Your task to perform on an android device: Open settings on Google Maps Image 0: 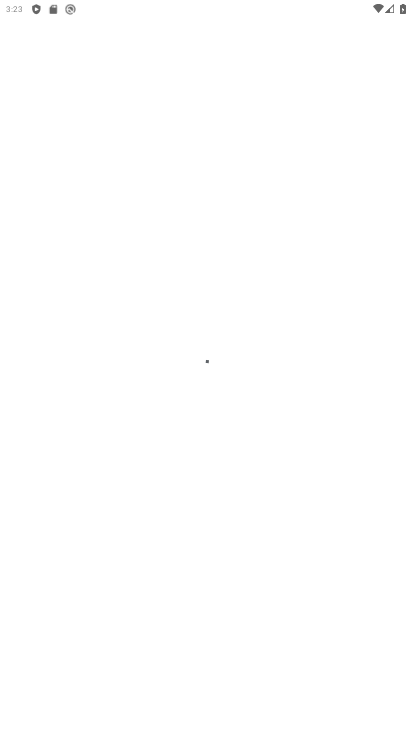
Step 0: press back button
Your task to perform on an android device: Open settings on Google Maps Image 1: 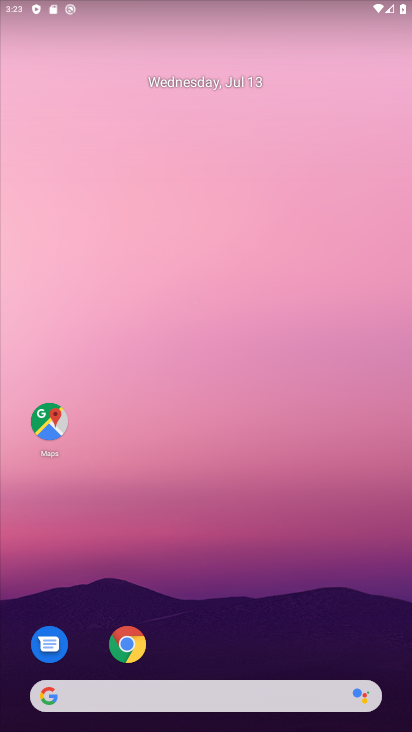
Step 1: click (48, 424)
Your task to perform on an android device: Open settings on Google Maps Image 2: 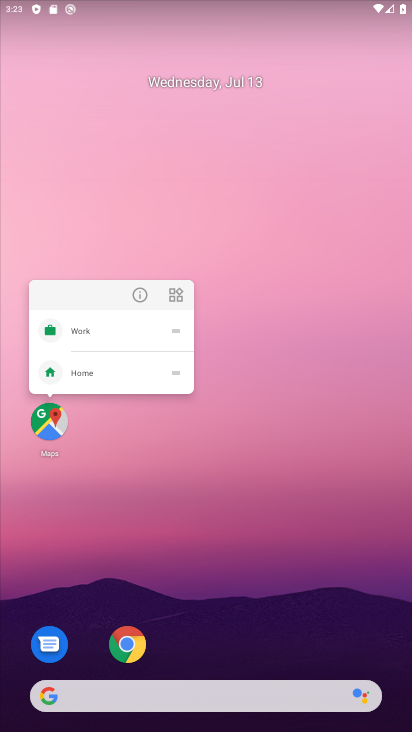
Step 2: click (53, 434)
Your task to perform on an android device: Open settings on Google Maps Image 3: 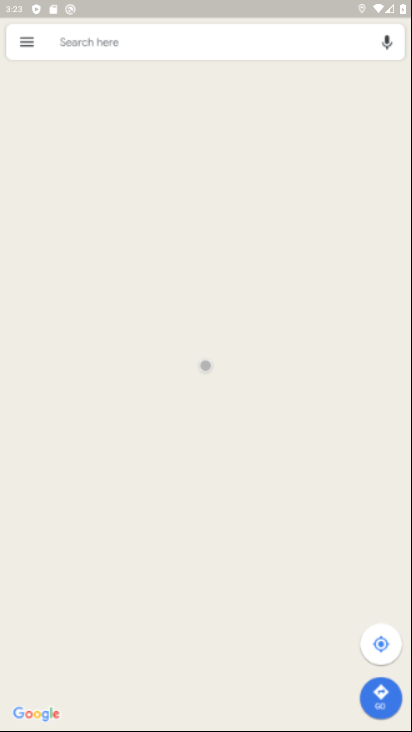
Step 3: click (35, 42)
Your task to perform on an android device: Open settings on Google Maps Image 4: 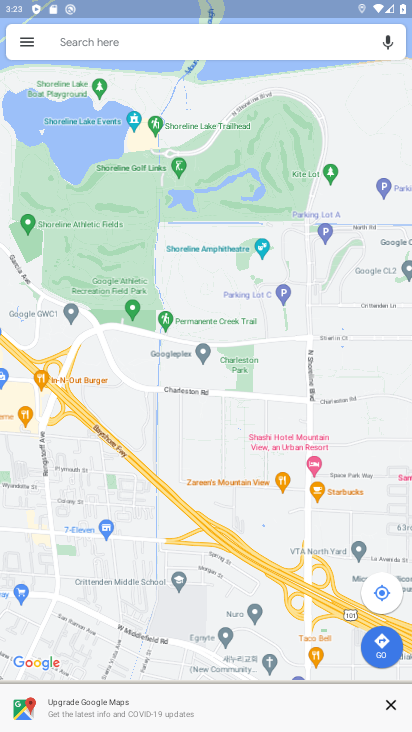
Step 4: click (20, 43)
Your task to perform on an android device: Open settings on Google Maps Image 5: 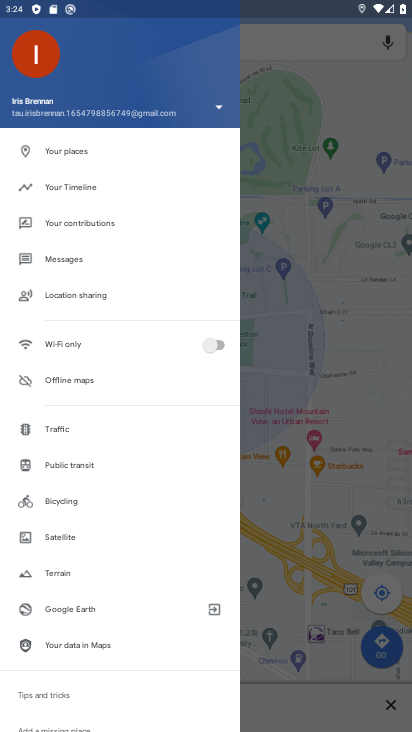
Step 5: drag from (88, 675) to (179, 101)
Your task to perform on an android device: Open settings on Google Maps Image 6: 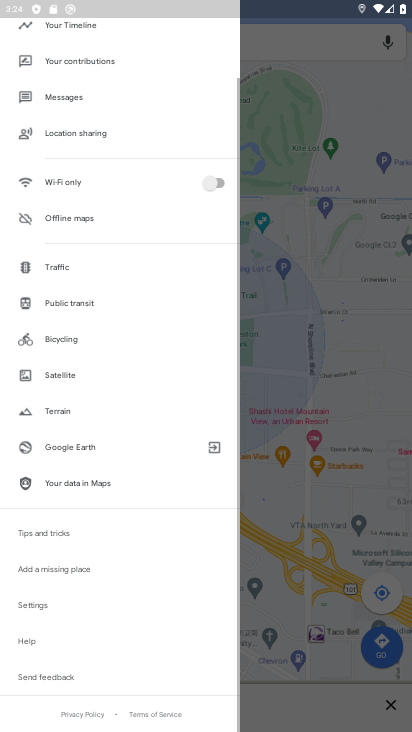
Step 6: click (36, 616)
Your task to perform on an android device: Open settings on Google Maps Image 7: 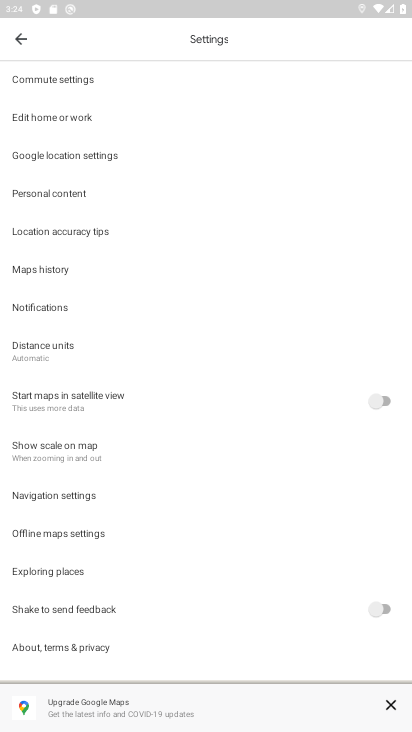
Step 7: task complete